Your task to perform on an android device: turn notification dots on Image 0: 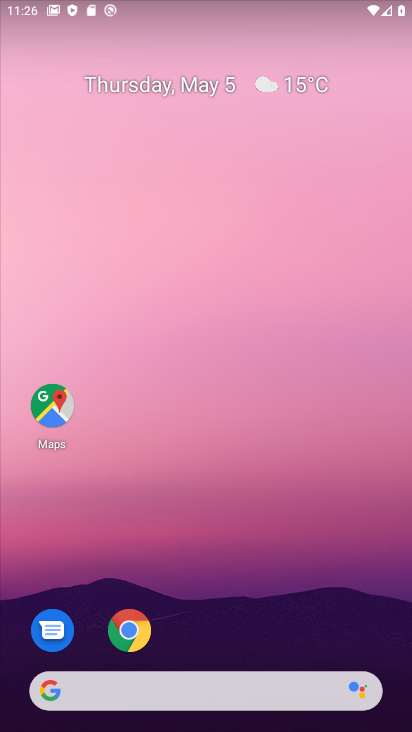
Step 0: drag from (216, 646) to (410, 280)
Your task to perform on an android device: turn notification dots on Image 1: 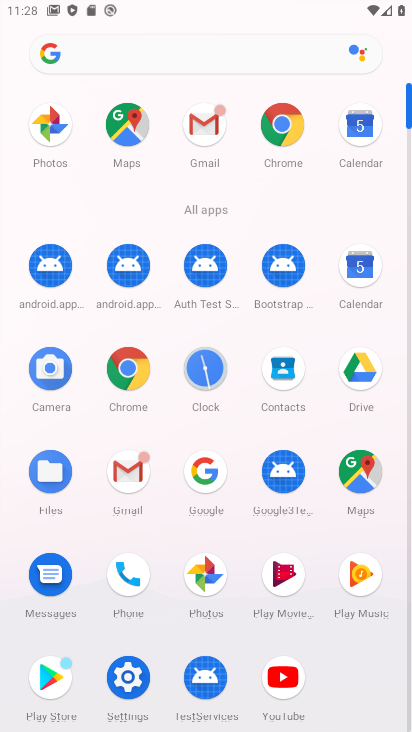
Step 1: click (135, 678)
Your task to perform on an android device: turn notification dots on Image 2: 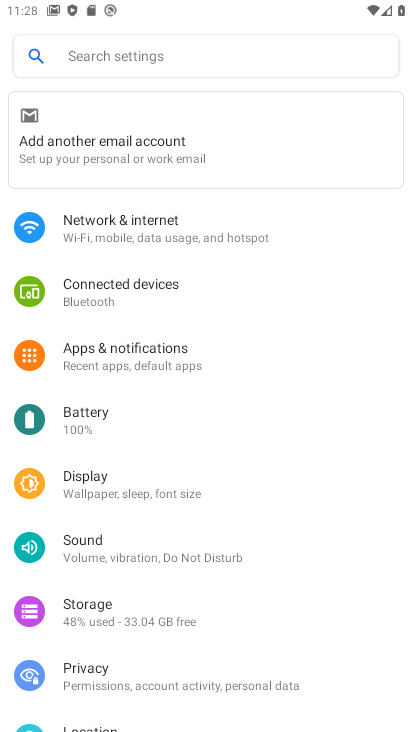
Step 2: drag from (136, 674) to (210, 230)
Your task to perform on an android device: turn notification dots on Image 3: 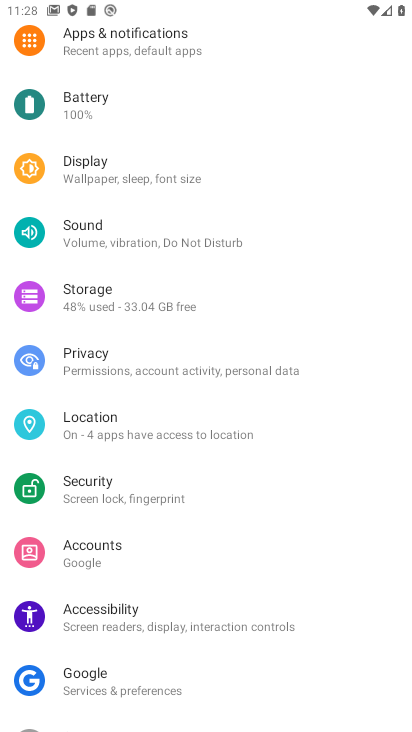
Step 3: click (206, 39)
Your task to perform on an android device: turn notification dots on Image 4: 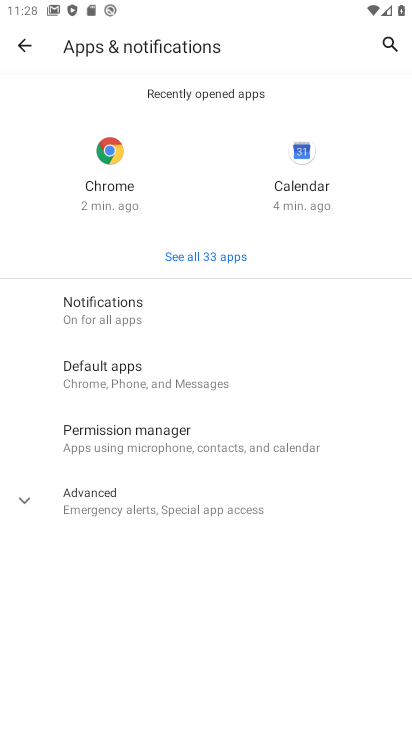
Step 4: click (161, 319)
Your task to perform on an android device: turn notification dots on Image 5: 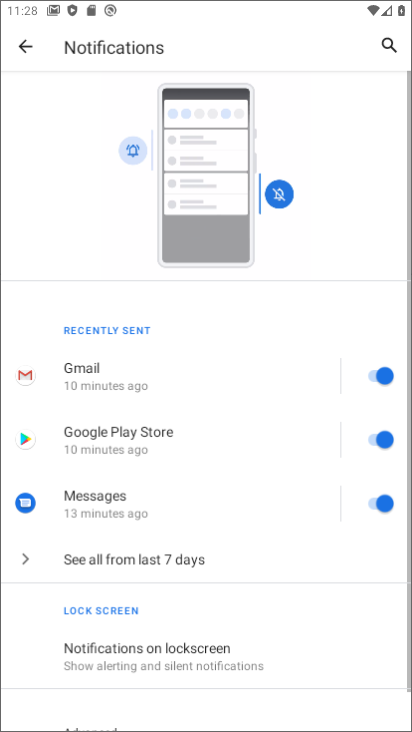
Step 5: drag from (179, 648) to (193, 182)
Your task to perform on an android device: turn notification dots on Image 6: 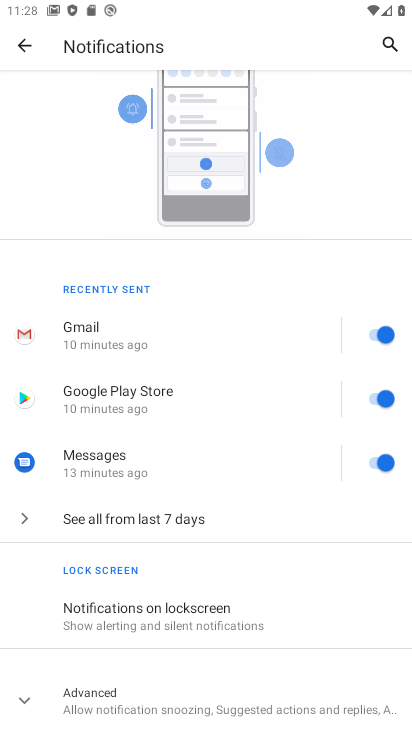
Step 6: click (248, 709)
Your task to perform on an android device: turn notification dots on Image 7: 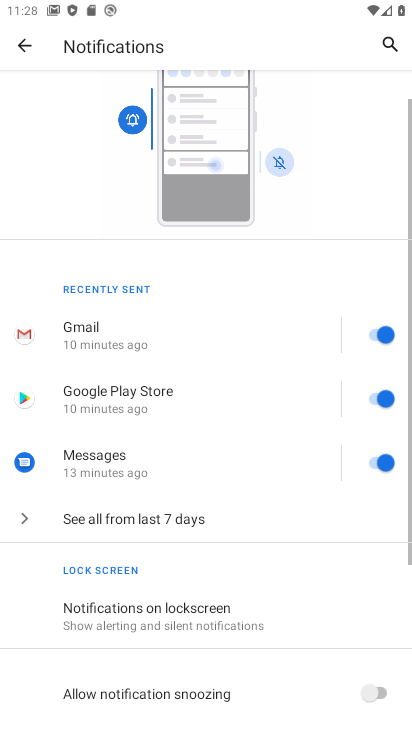
Step 7: task complete